Your task to perform on an android device: Open Youtube and go to the subscriptions tab Image 0: 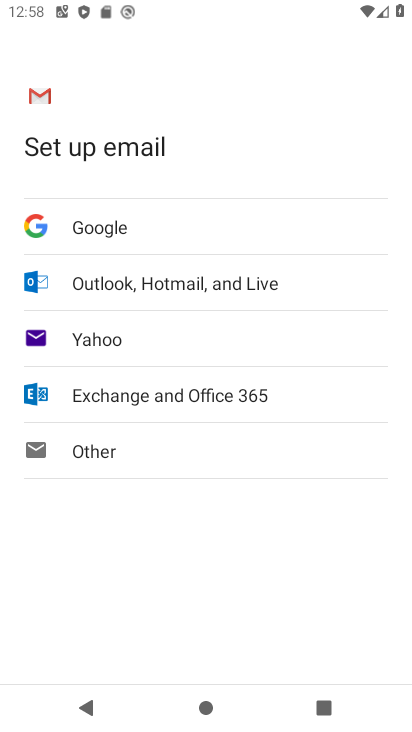
Step 0: press home button
Your task to perform on an android device: Open Youtube and go to the subscriptions tab Image 1: 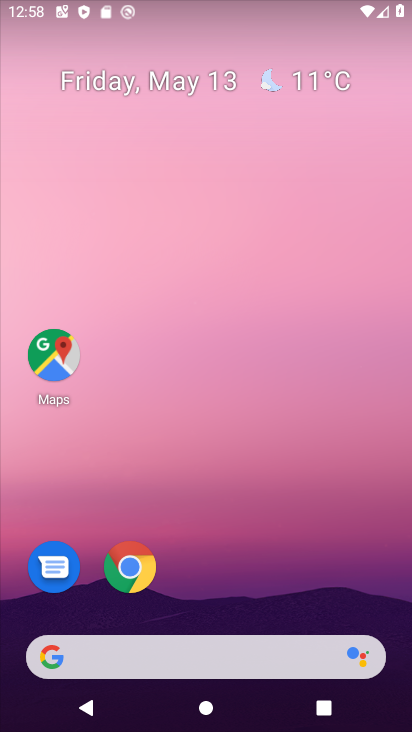
Step 1: drag from (171, 639) to (229, 67)
Your task to perform on an android device: Open Youtube and go to the subscriptions tab Image 2: 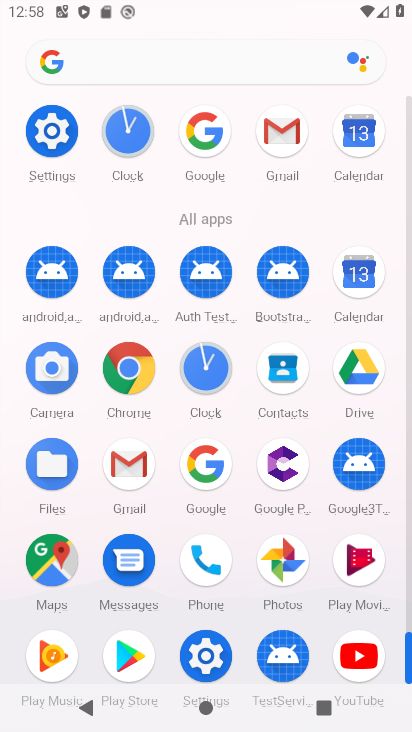
Step 2: drag from (196, 662) to (231, 456)
Your task to perform on an android device: Open Youtube and go to the subscriptions tab Image 3: 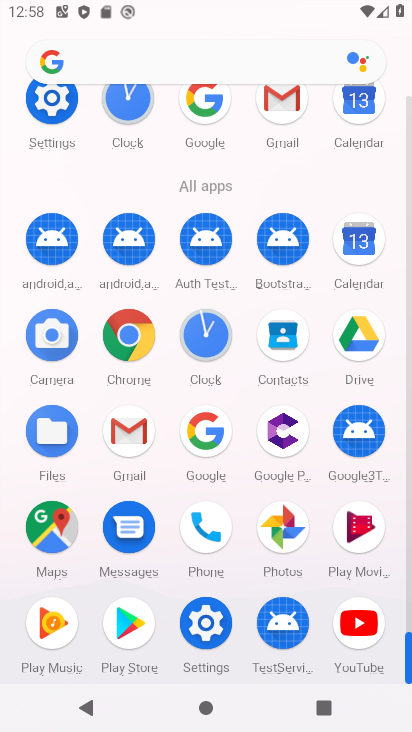
Step 3: click (362, 615)
Your task to perform on an android device: Open Youtube and go to the subscriptions tab Image 4: 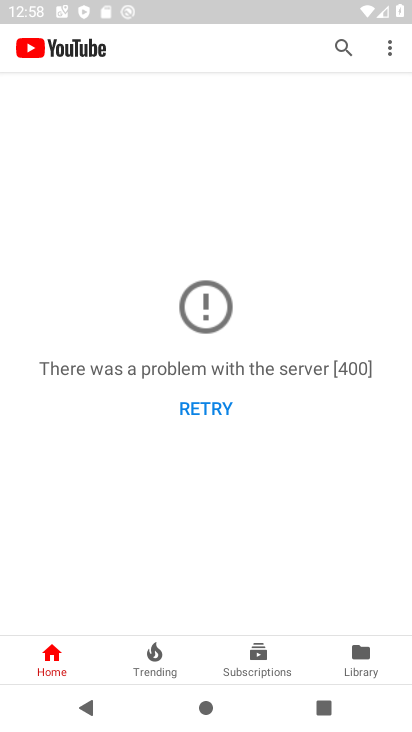
Step 4: click (242, 669)
Your task to perform on an android device: Open Youtube and go to the subscriptions tab Image 5: 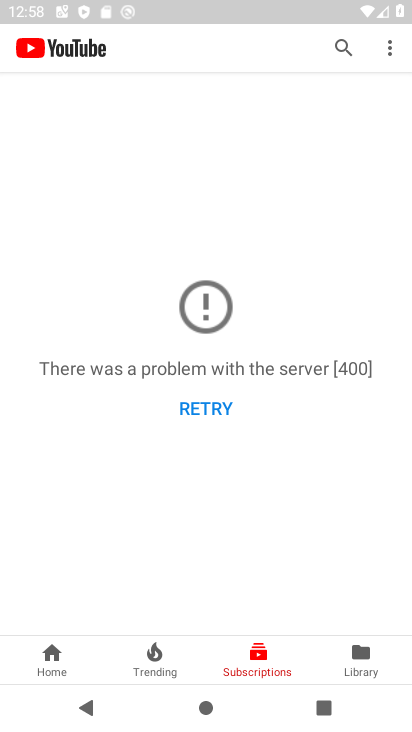
Step 5: task complete